Your task to perform on an android device: turn off data saver in the chrome app Image 0: 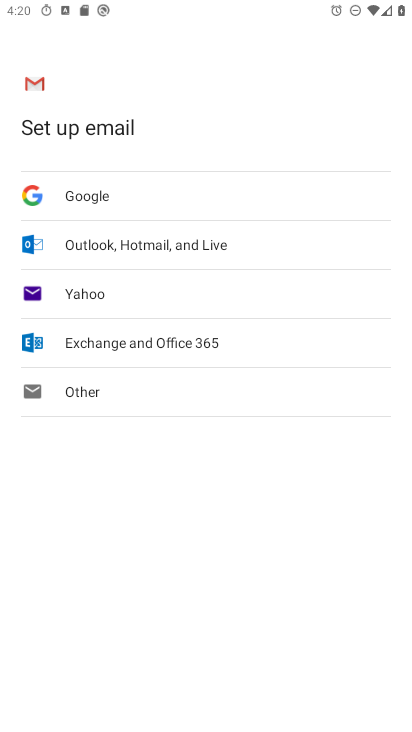
Step 0: press home button
Your task to perform on an android device: turn off data saver in the chrome app Image 1: 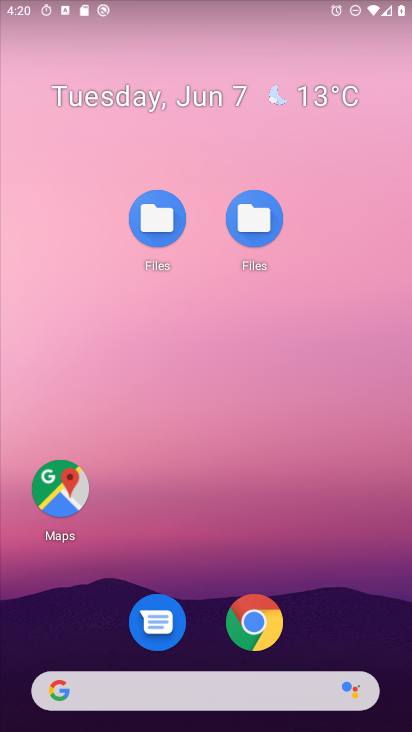
Step 1: click (248, 625)
Your task to perform on an android device: turn off data saver in the chrome app Image 2: 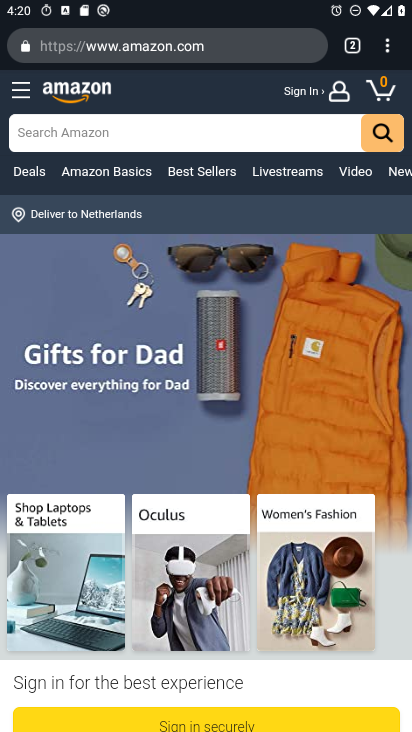
Step 2: click (381, 44)
Your task to perform on an android device: turn off data saver in the chrome app Image 3: 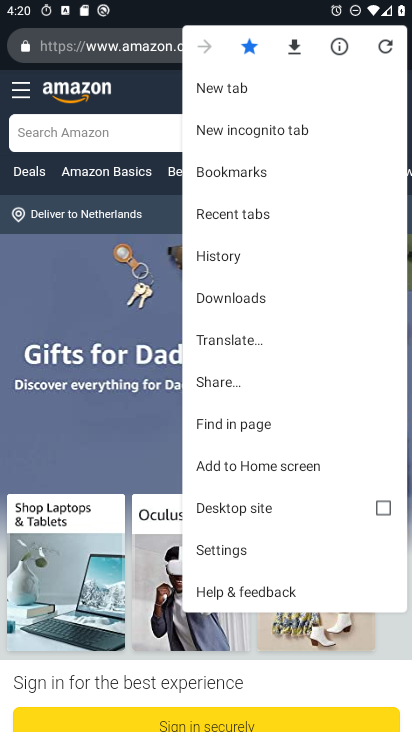
Step 3: click (47, 473)
Your task to perform on an android device: turn off data saver in the chrome app Image 4: 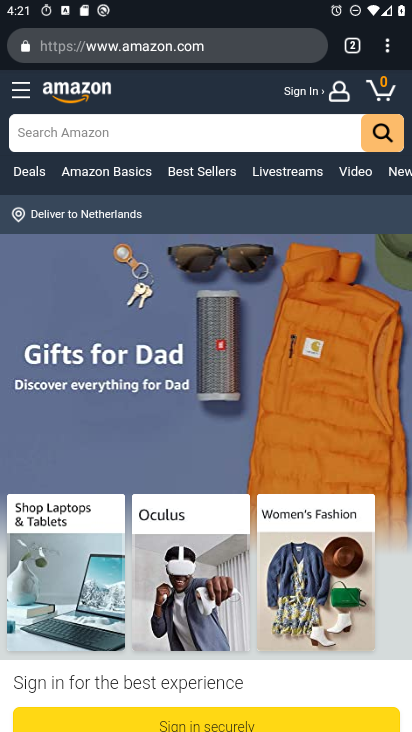
Step 4: click (388, 36)
Your task to perform on an android device: turn off data saver in the chrome app Image 5: 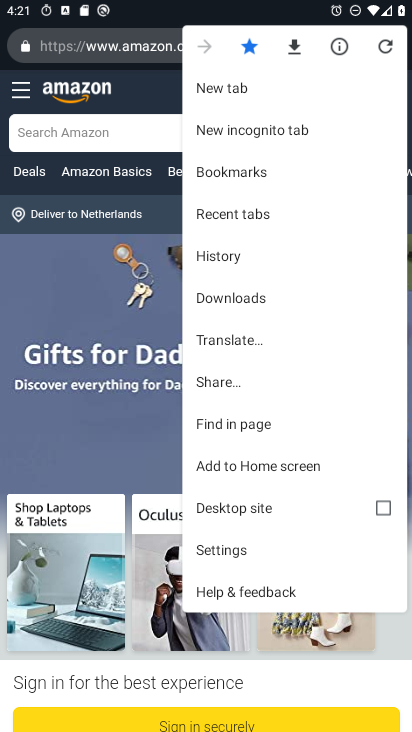
Step 5: click (260, 549)
Your task to perform on an android device: turn off data saver in the chrome app Image 6: 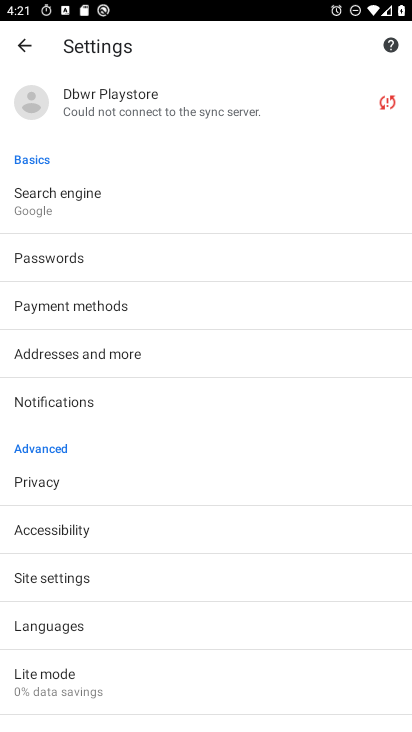
Step 6: click (101, 485)
Your task to perform on an android device: turn off data saver in the chrome app Image 7: 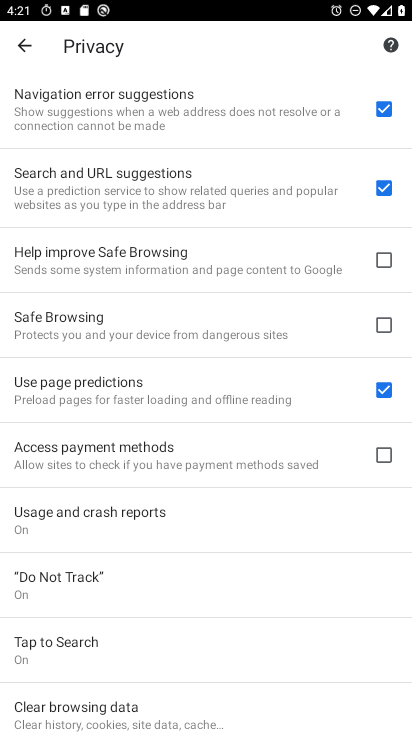
Step 7: drag from (123, 645) to (119, 273)
Your task to perform on an android device: turn off data saver in the chrome app Image 8: 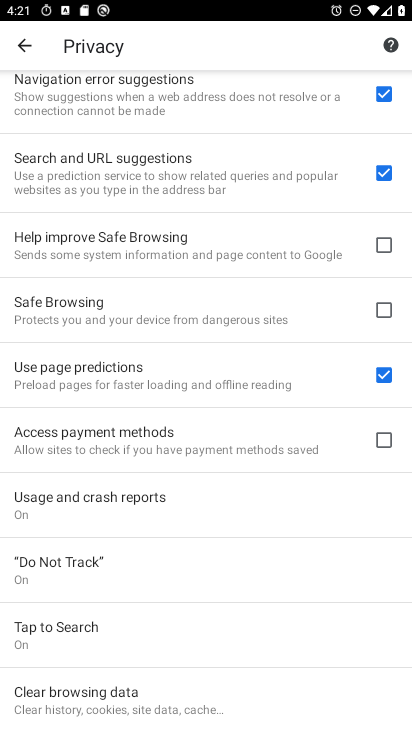
Step 8: press back button
Your task to perform on an android device: turn off data saver in the chrome app Image 9: 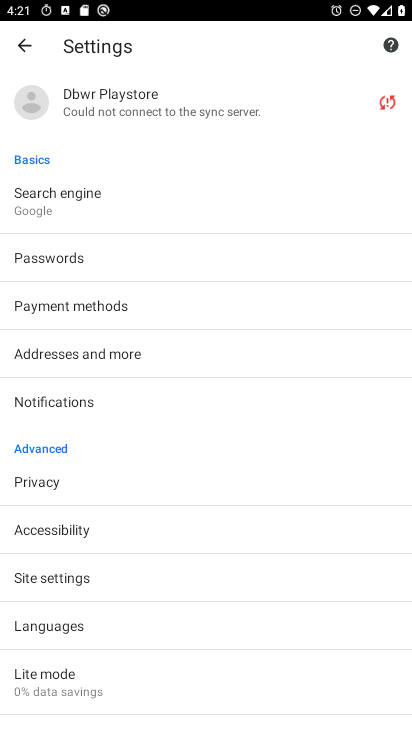
Step 9: press back button
Your task to perform on an android device: turn off data saver in the chrome app Image 10: 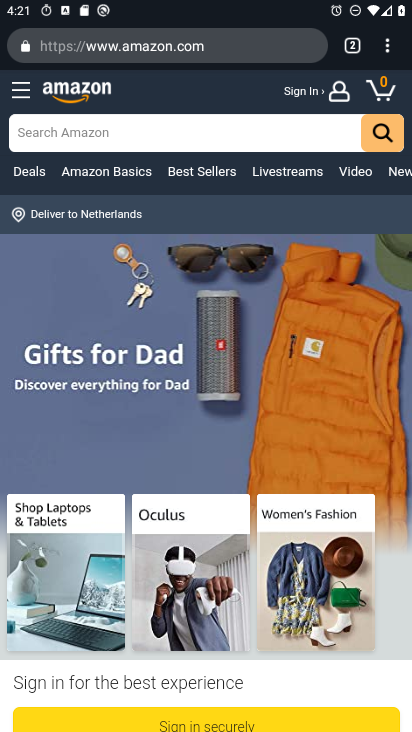
Step 10: click (383, 49)
Your task to perform on an android device: turn off data saver in the chrome app Image 11: 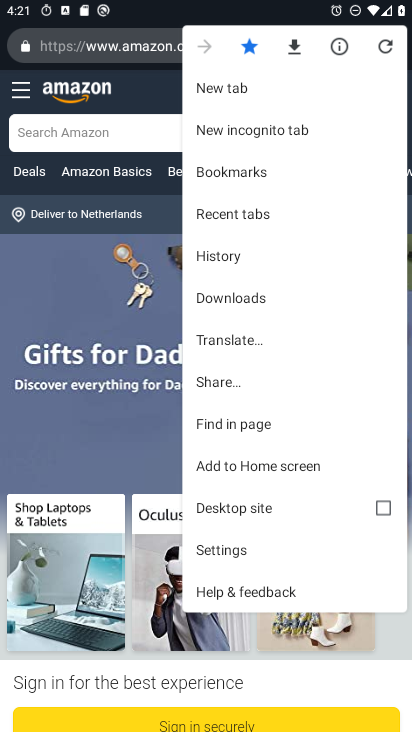
Step 11: click (303, 558)
Your task to perform on an android device: turn off data saver in the chrome app Image 12: 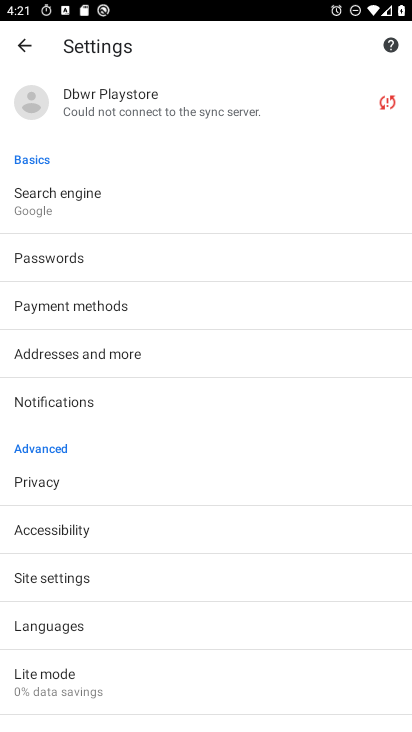
Step 12: drag from (272, 617) to (280, 375)
Your task to perform on an android device: turn off data saver in the chrome app Image 13: 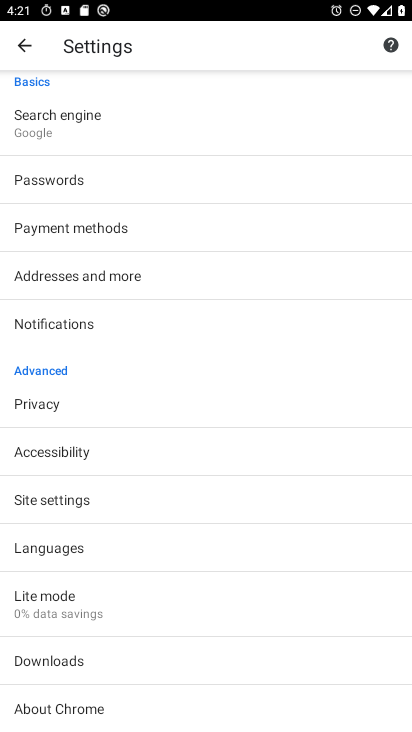
Step 13: click (77, 499)
Your task to perform on an android device: turn off data saver in the chrome app Image 14: 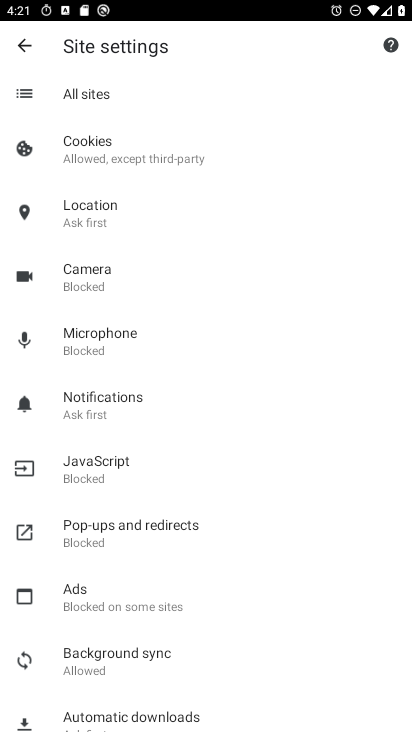
Step 14: drag from (99, 575) to (178, 82)
Your task to perform on an android device: turn off data saver in the chrome app Image 15: 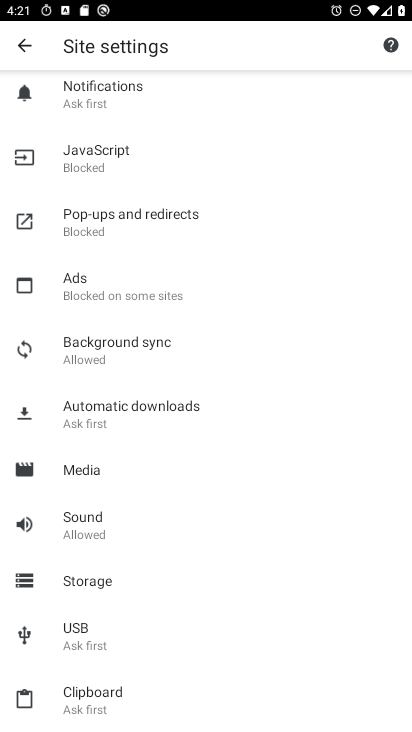
Step 15: drag from (249, 613) to (306, 15)
Your task to perform on an android device: turn off data saver in the chrome app Image 16: 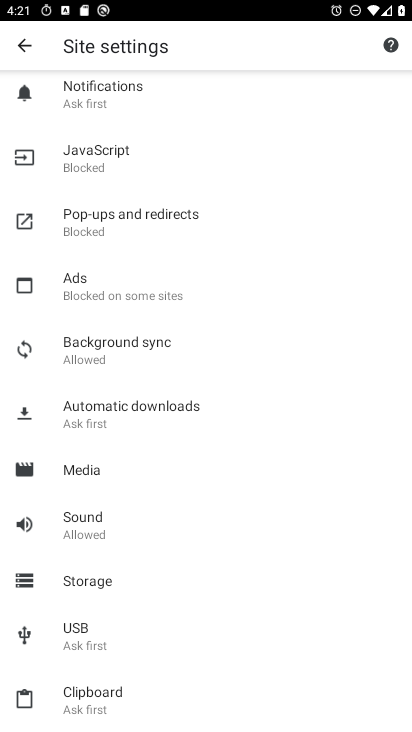
Step 16: drag from (227, 607) to (263, 153)
Your task to perform on an android device: turn off data saver in the chrome app Image 17: 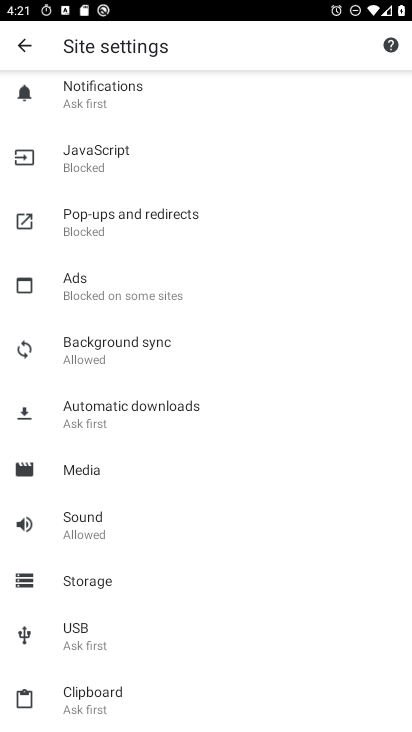
Step 17: drag from (254, 348) to (280, 212)
Your task to perform on an android device: turn off data saver in the chrome app Image 18: 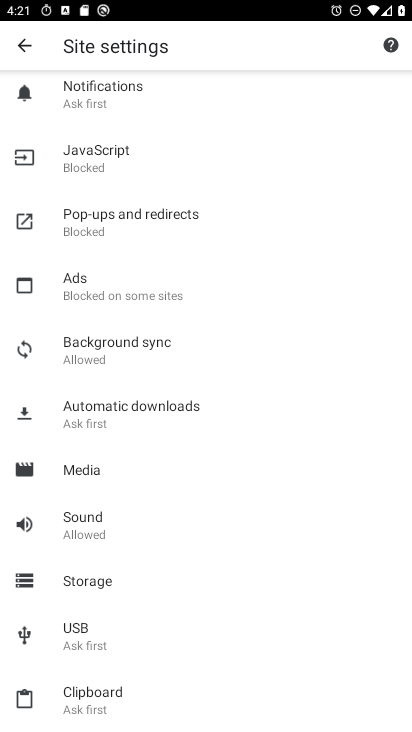
Step 18: drag from (128, 720) to (210, 462)
Your task to perform on an android device: turn off data saver in the chrome app Image 19: 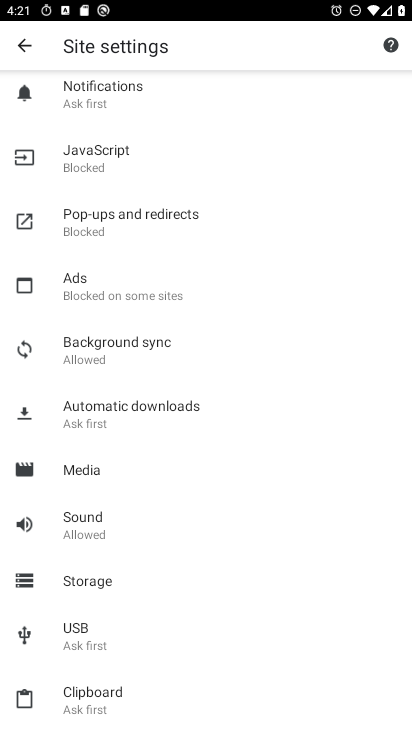
Step 19: click (24, 43)
Your task to perform on an android device: turn off data saver in the chrome app Image 20: 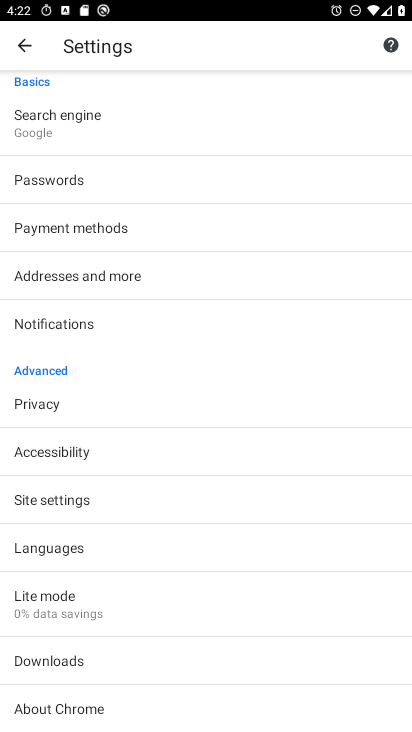
Step 20: click (142, 703)
Your task to perform on an android device: turn off data saver in the chrome app Image 21: 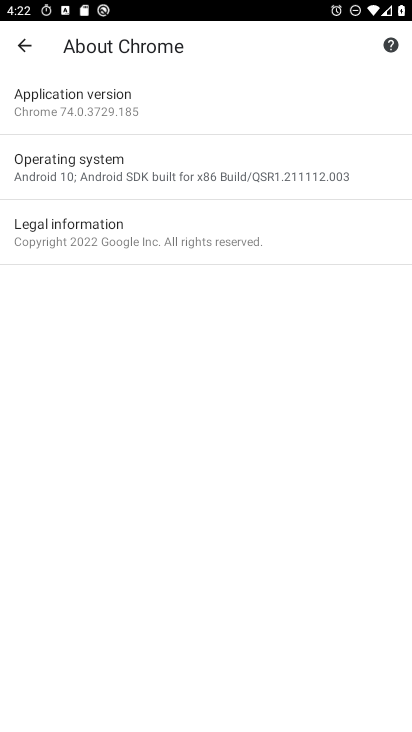
Step 21: press back button
Your task to perform on an android device: turn off data saver in the chrome app Image 22: 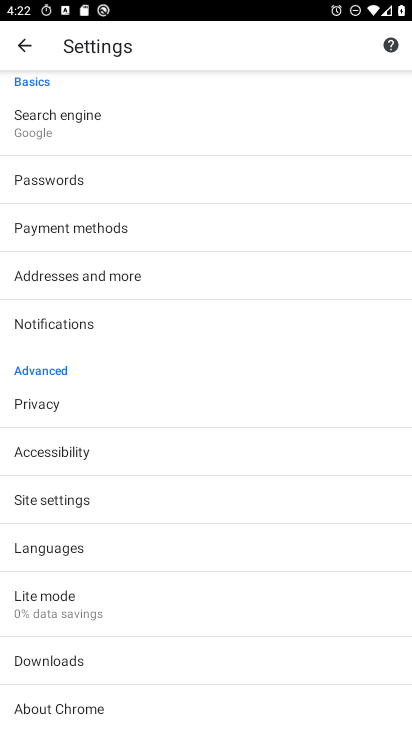
Step 22: click (95, 493)
Your task to perform on an android device: turn off data saver in the chrome app Image 23: 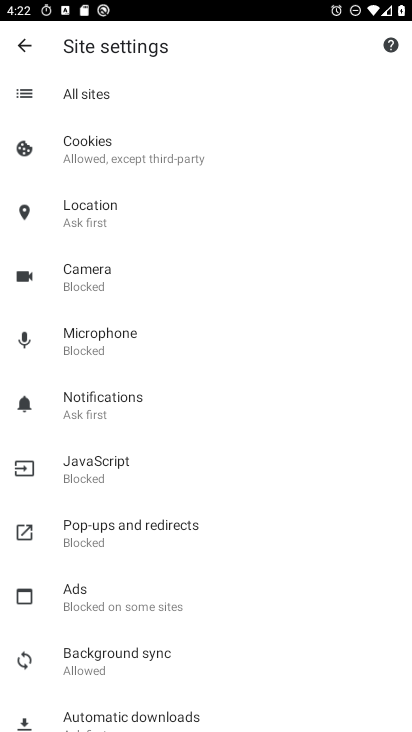
Step 23: task complete